Your task to perform on an android device: turn off smart reply in the gmail app Image 0: 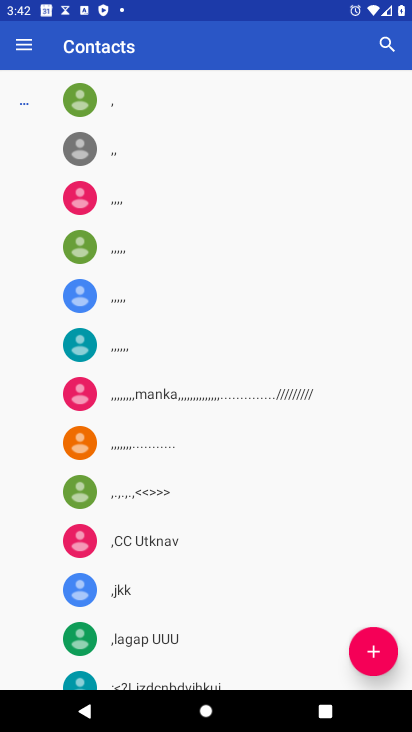
Step 0: press home button
Your task to perform on an android device: turn off smart reply in the gmail app Image 1: 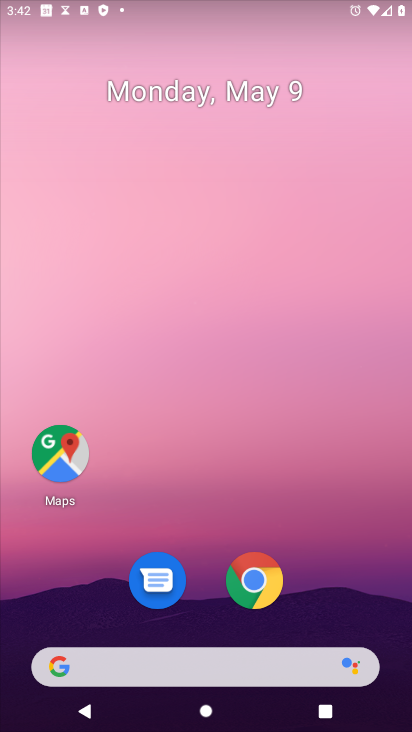
Step 1: drag from (328, 291) to (263, 8)
Your task to perform on an android device: turn off smart reply in the gmail app Image 2: 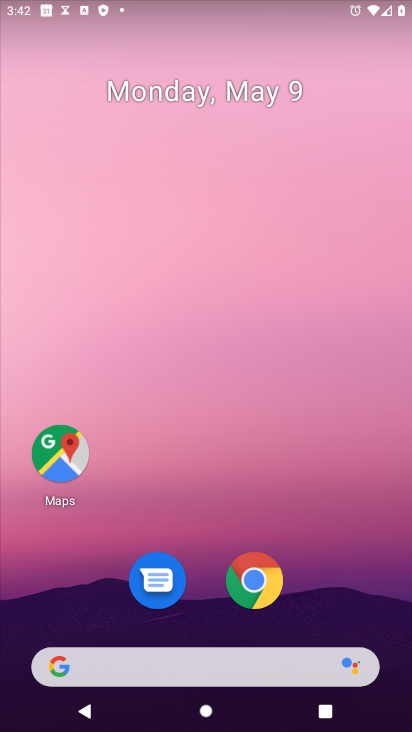
Step 2: drag from (345, 567) to (320, 87)
Your task to perform on an android device: turn off smart reply in the gmail app Image 3: 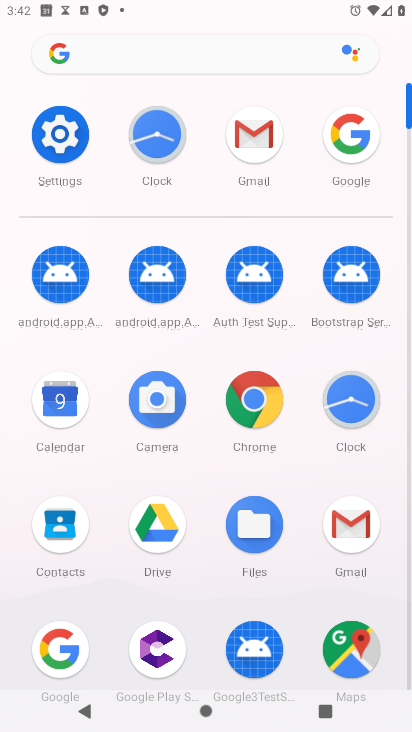
Step 3: click (346, 551)
Your task to perform on an android device: turn off smart reply in the gmail app Image 4: 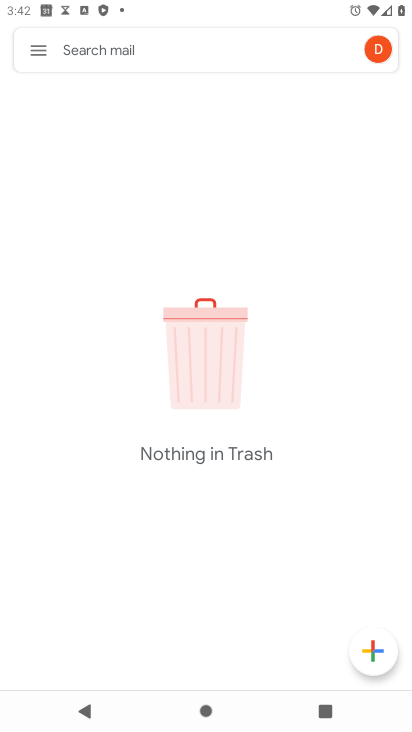
Step 4: click (44, 58)
Your task to perform on an android device: turn off smart reply in the gmail app Image 5: 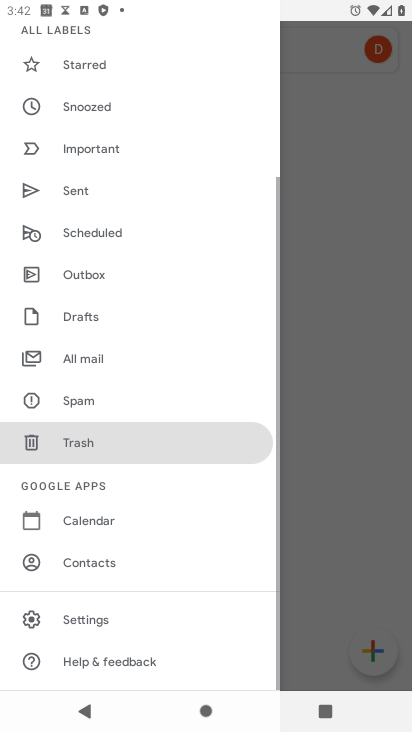
Step 5: drag from (165, 543) to (172, 190)
Your task to perform on an android device: turn off smart reply in the gmail app Image 6: 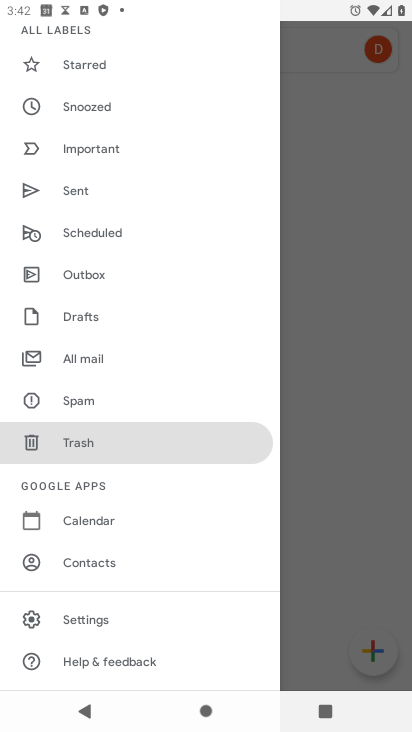
Step 6: click (108, 618)
Your task to perform on an android device: turn off smart reply in the gmail app Image 7: 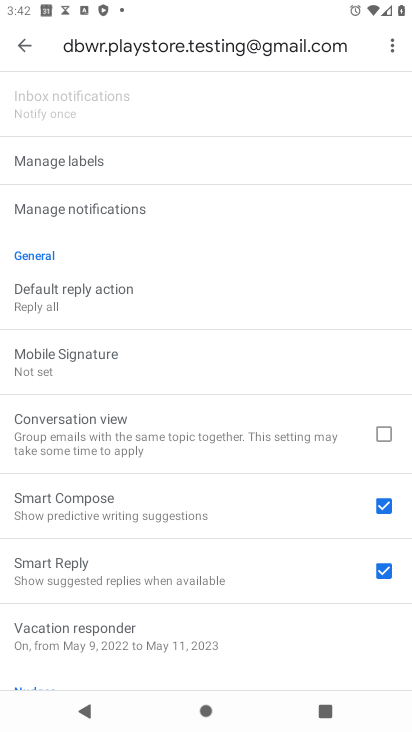
Step 7: click (390, 570)
Your task to perform on an android device: turn off smart reply in the gmail app Image 8: 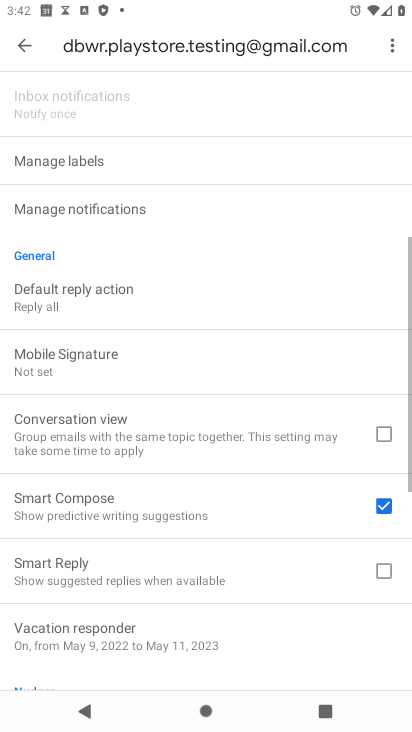
Step 8: task complete